Your task to perform on an android device: install app "Yahoo Mail" Image 0: 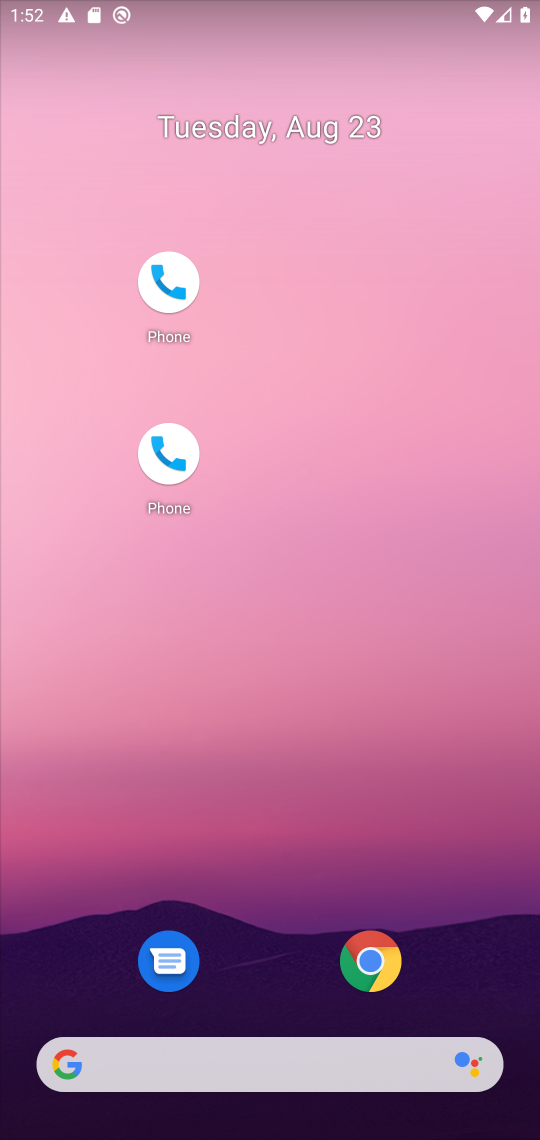
Step 0: task complete